Your task to perform on an android device: turn off location history Image 0: 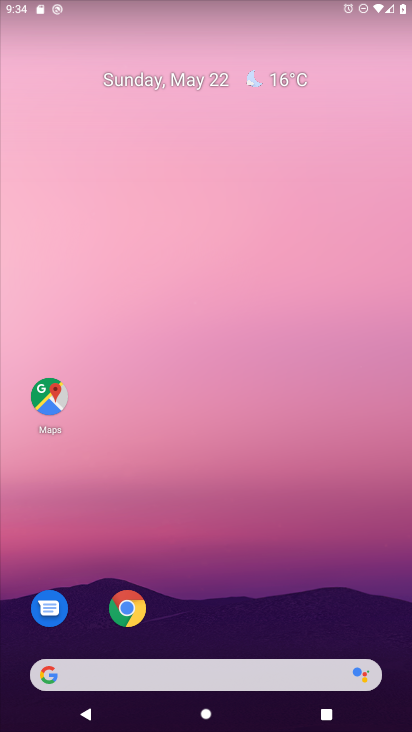
Step 0: drag from (173, 685) to (145, 43)
Your task to perform on an android device: turn off location history Image 1: 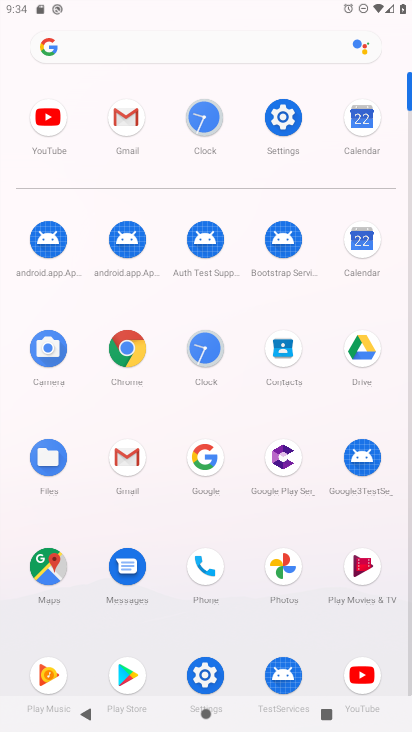
Step 1: click (280, 119)
Your task to perform on an android device: turn off location history Image 2: 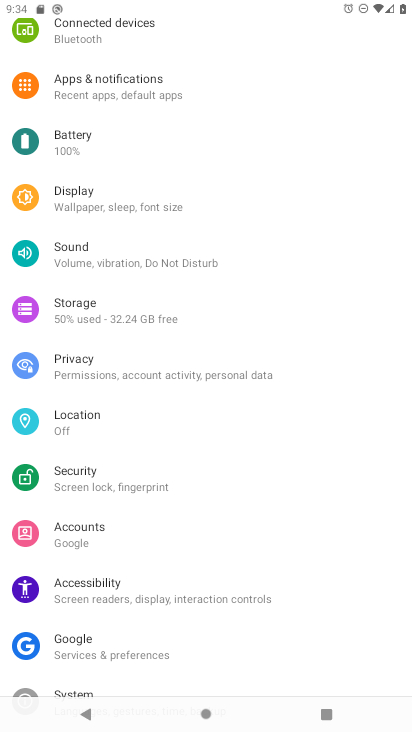
Step 2: click (79, 417)
Your task to perform on an android device: turn off location history Image 3: 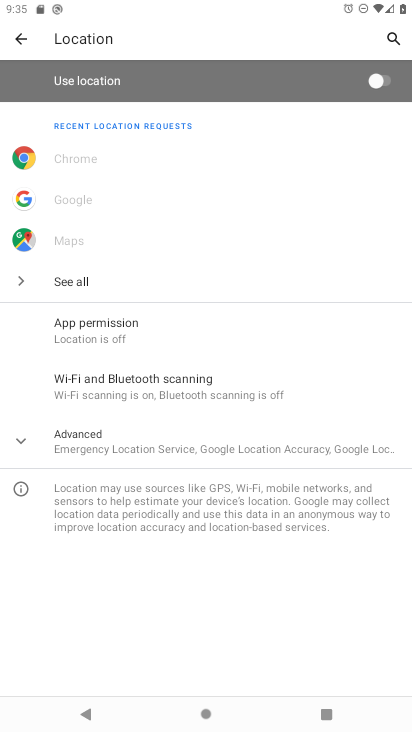
Step 3: click (82, 428)
Your task to perform on an android device: turn off location history Image 4: 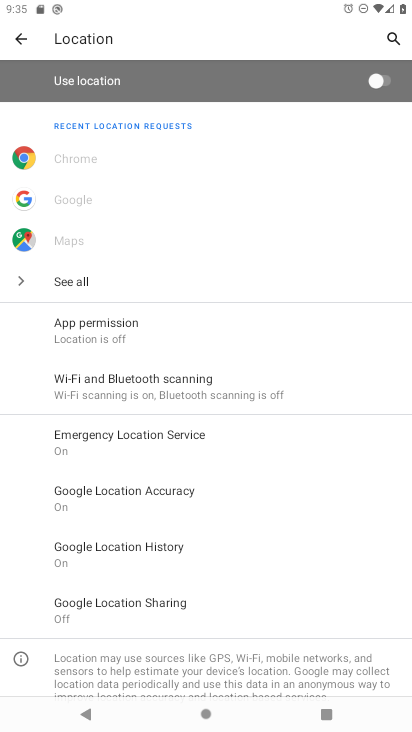
Step 4: click (135, 543)
Your task to perform on an android device: turn off location history Image 5: 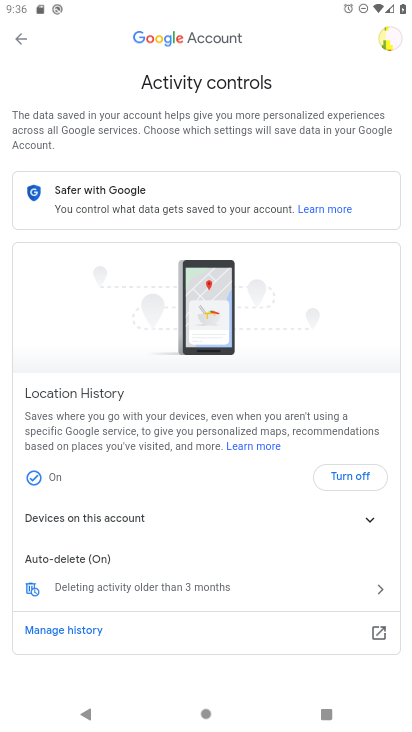
Step 5: click (346, 476)
Your task to perform on an android device: turn off location history Image 6: 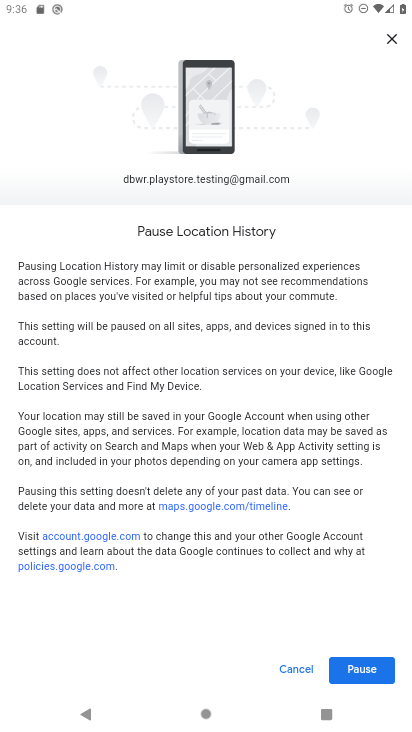
Step 6: click (353, 671)
Your task to perform on an android device: turn off location history Image 7: 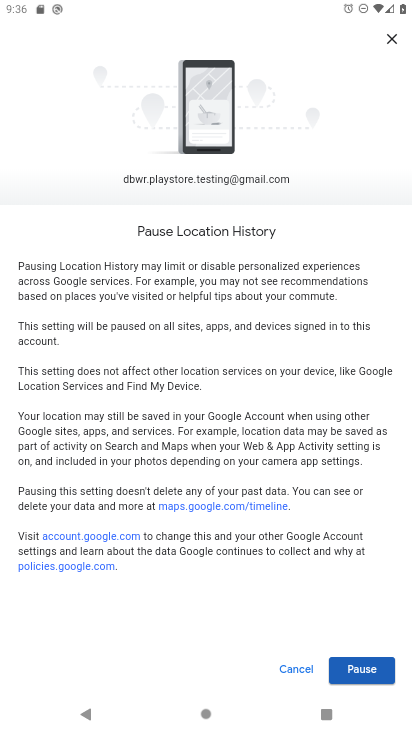
Step 7: drag from (266, 603) to (223, 270)
Your task to perform on an android device: turn off location history Image 8: 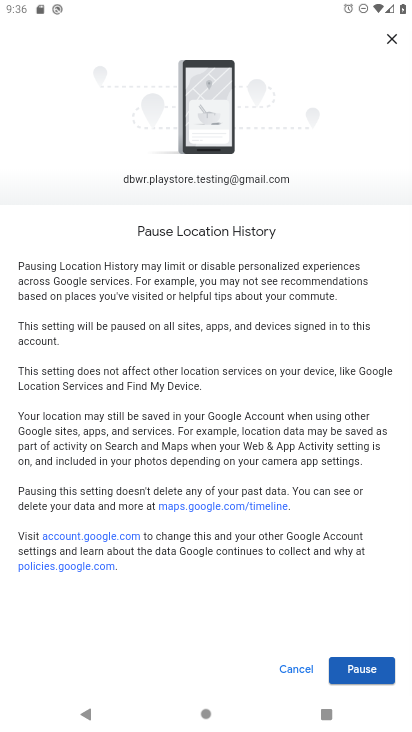
Step 8: click (363, 667)
Your task to perform on an android device: turn off location history Image 9: 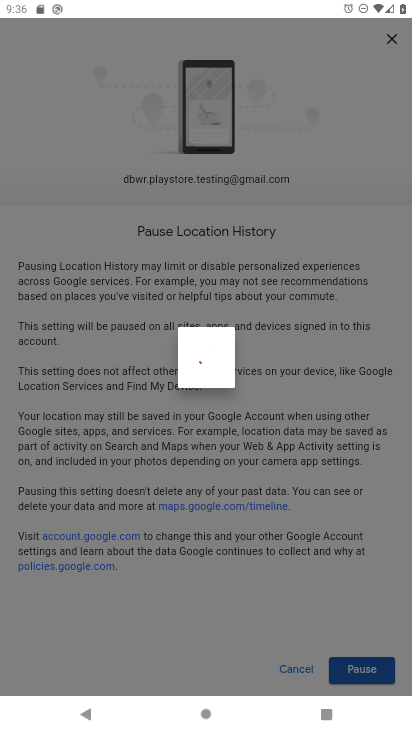
Step 9: click (364, 666)
Your task to perform on an android device: turn off location history Image 10: 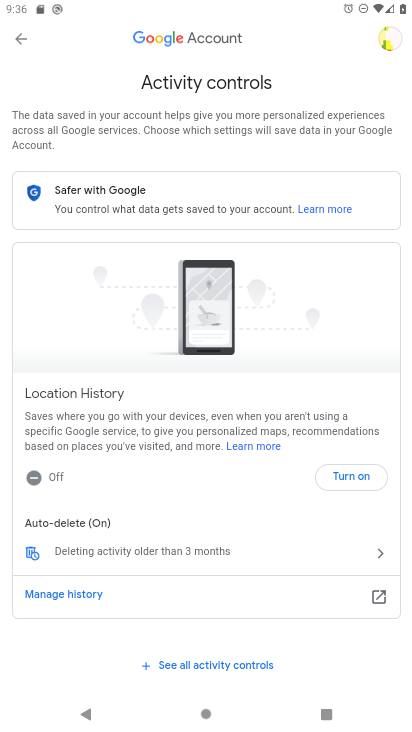
Step 10: task complete